Your task to perform on an android device: Go to Amazon Image 0: 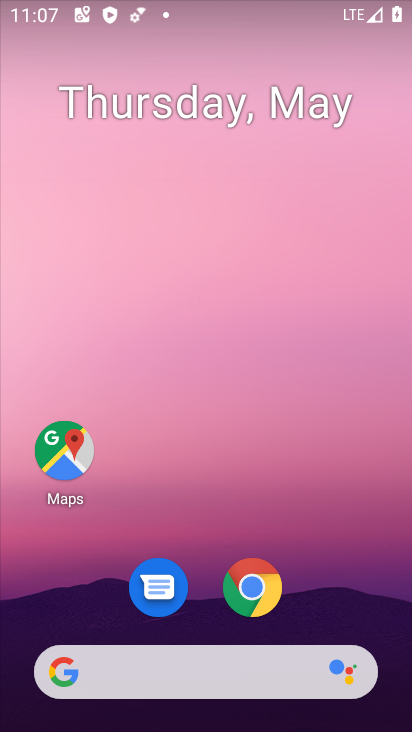
Step 0: click (263, 602)
Your task to perform on an android device: Go to Amazon Image 1: 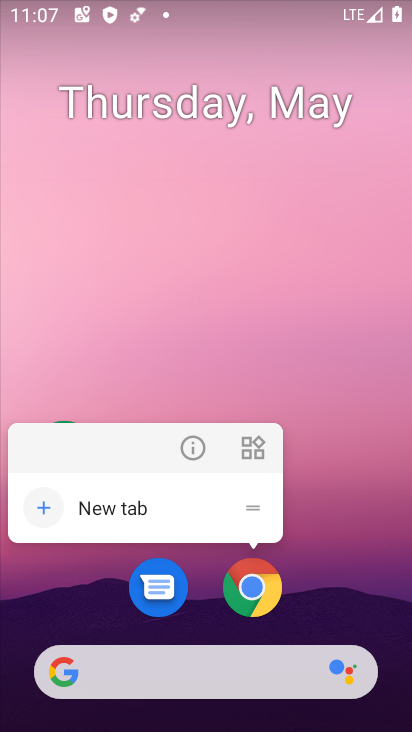
Step 1: click (254, 599)
Your task to perform on an android device: Go to Amazon Image 2: 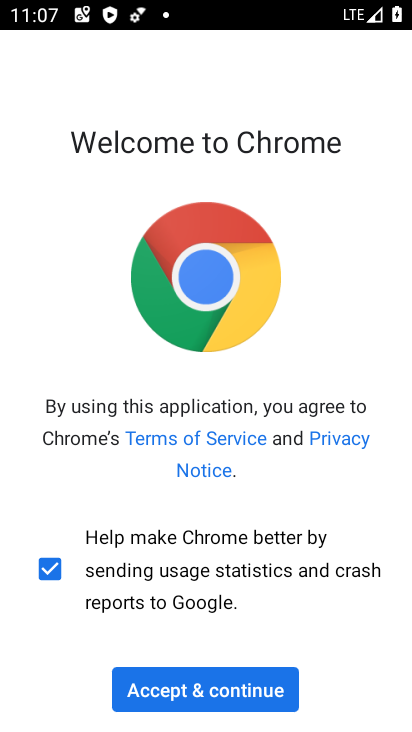
Step 2: click (248, 690)
Your task to perform on an android device: Go to Amazon Image 3: 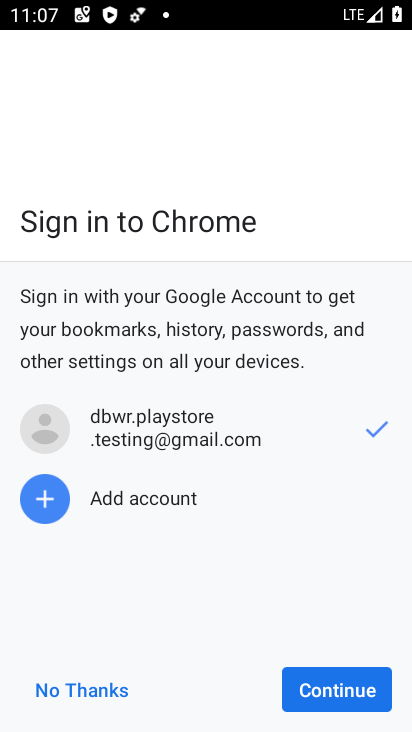
Step 3: click (384, 690)
Your task to perform on an android device: Go to Amazon Image 4: 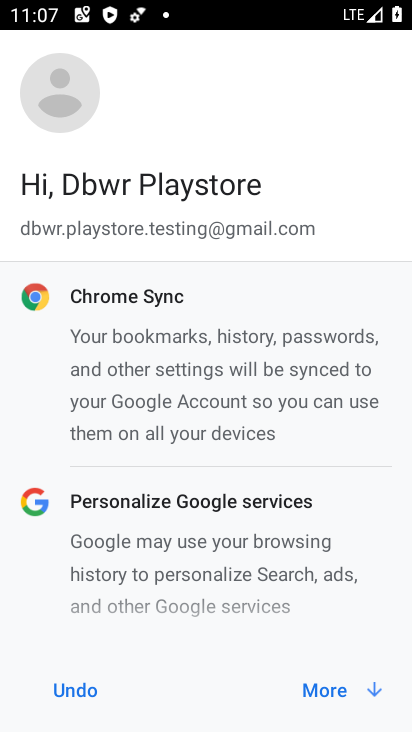
Step 4: click (384, 690)
Your task to perform on an android device: Go to Amazon Image 5: 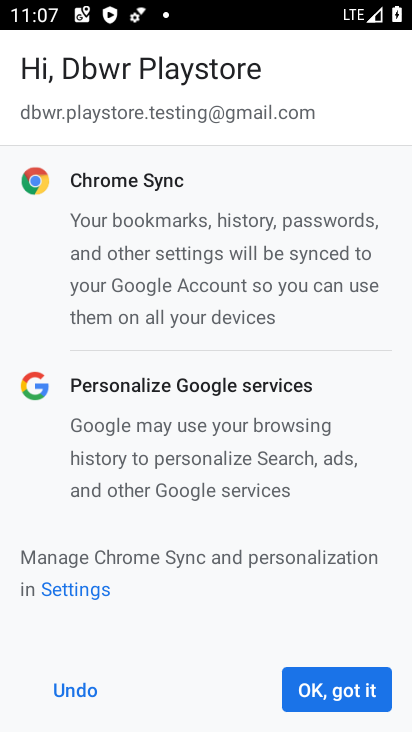
Step 5: click (384, 690)
Your task to perform on an android device: Go to Amazon Image 6: 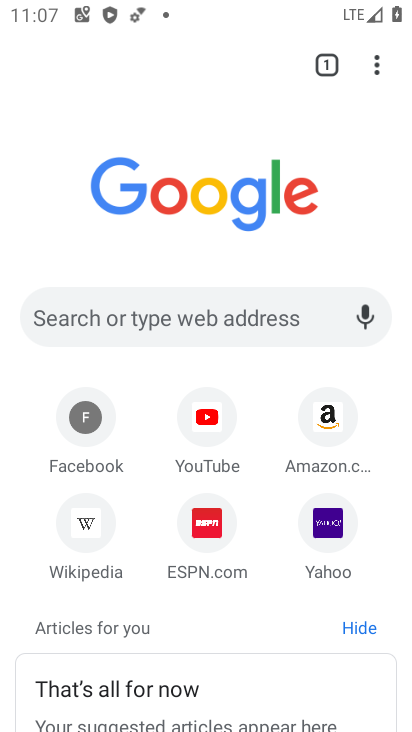
Step 6: click (336, 416)
Your task to perform on an android device: Go to Amazon Image 7: 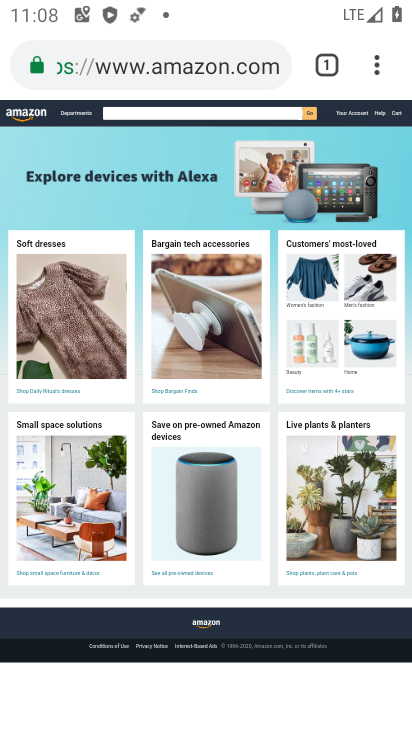
Step 7: task complete